Your task to perform on an android device: clear history in the chrome app Image 0: 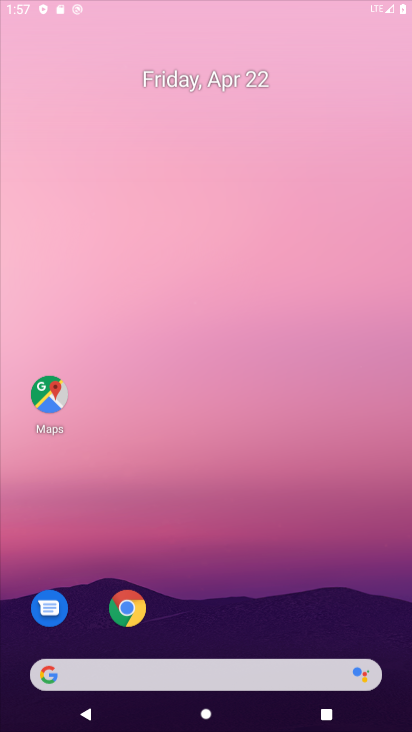
Step 0: click (337, 239)
Your task to perform on an android device: clear history in the chrome app Image 1: 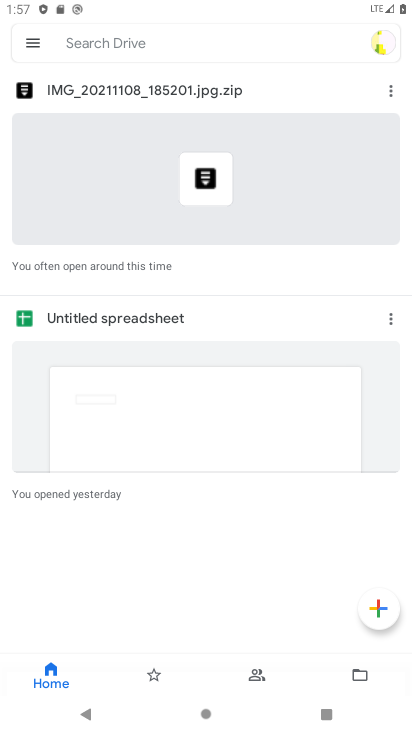
Step 1: press home button
Your task to perform on an android device: clear history in the chrome app Image 2: 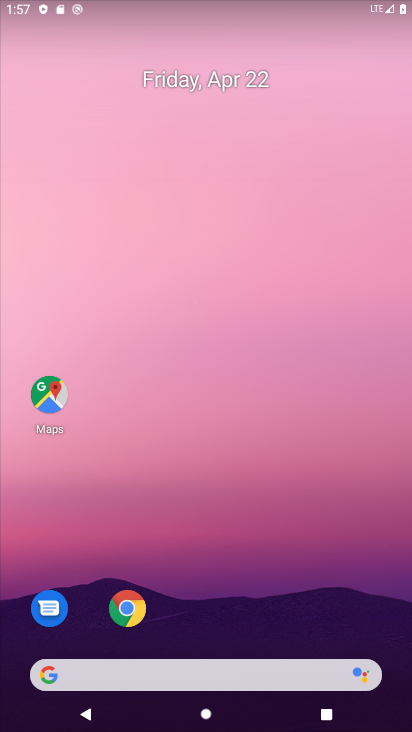
Step 2: drag from (261, 679) to (350, 61)
Your task to perform on an android device: clear history in the chrome app Image 3: 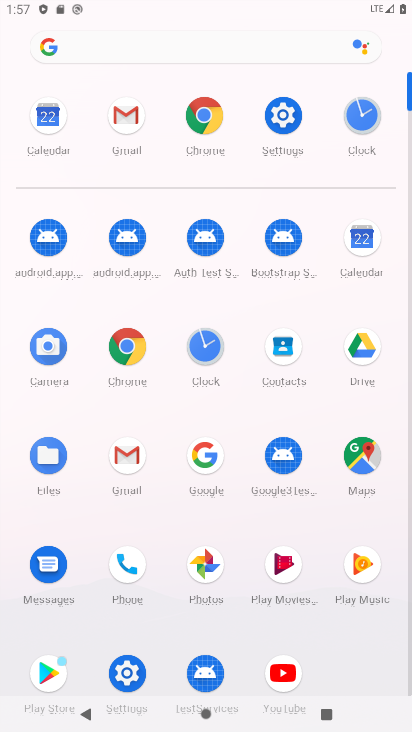
Step 3: click (204, 110)
Your task to perform on an android device: clear history in the chrome app Image 4: 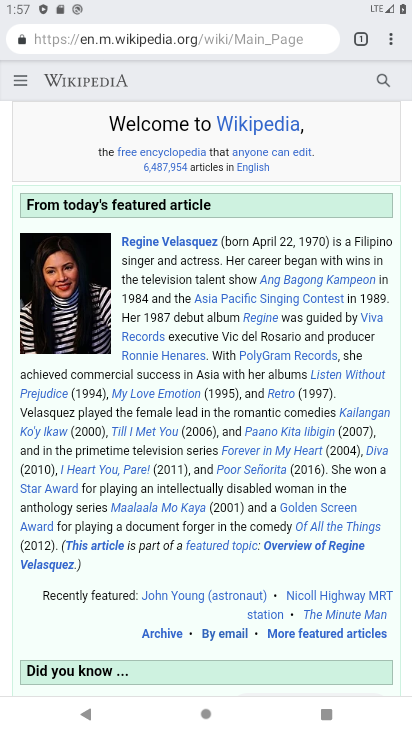
Step 4: click (389, 37)
Your task to perform on an android device: clear history in the chrome app Image 5: 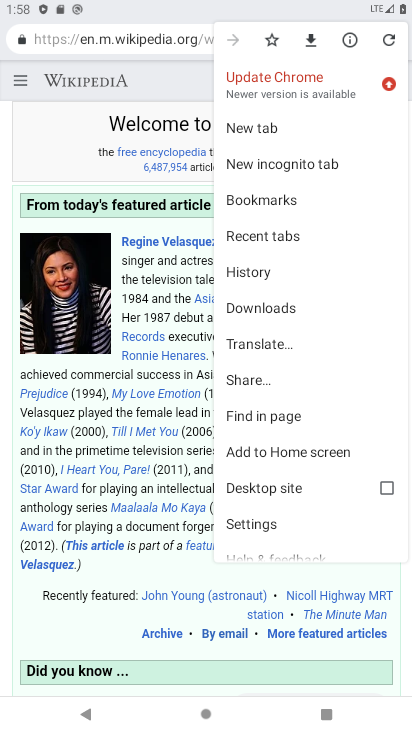
Step 5: click (245, 518)
Your task to perform on an android device: clear history in the chrome app Image 6: 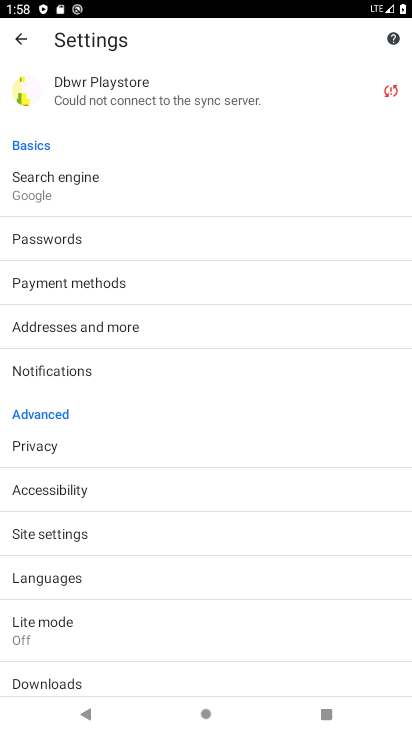
Step 6: click (39, 437)
Your task to perform on an android device: clear history in the chrome app Image 7: 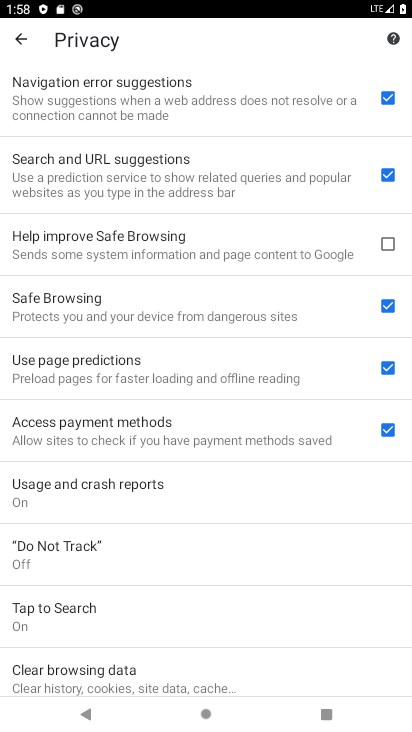
Step 7: click (99, 672)
Your task to perform on an android device: clear history in the chrome app Image 8: 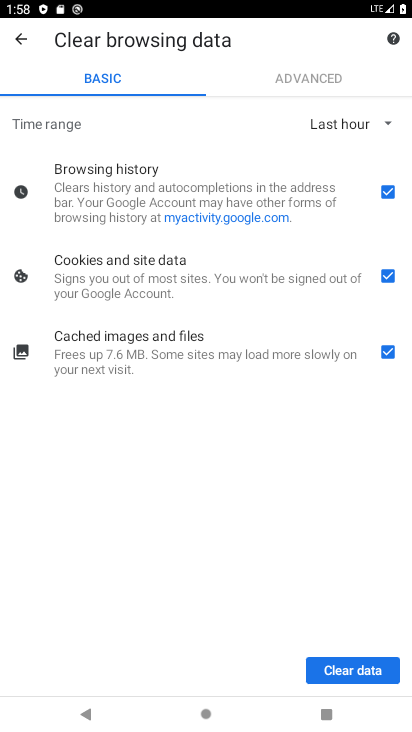
Step 8: click (369, 674)
Your task to perform on an android device: clear history in the chrome app Image 9: 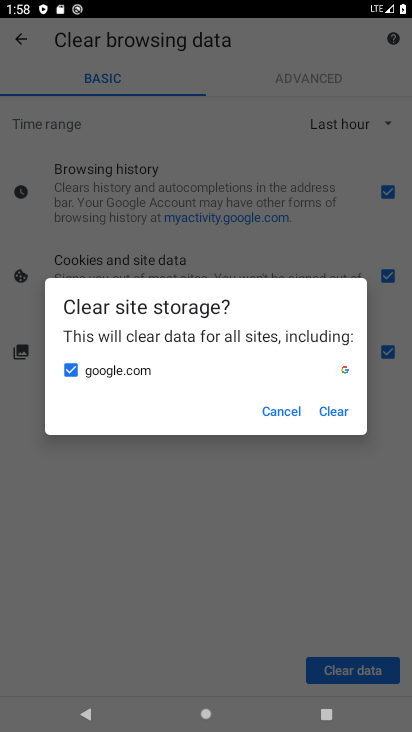
Step 9: task complete